Your task to perform on an android device: Open the map Image 0: 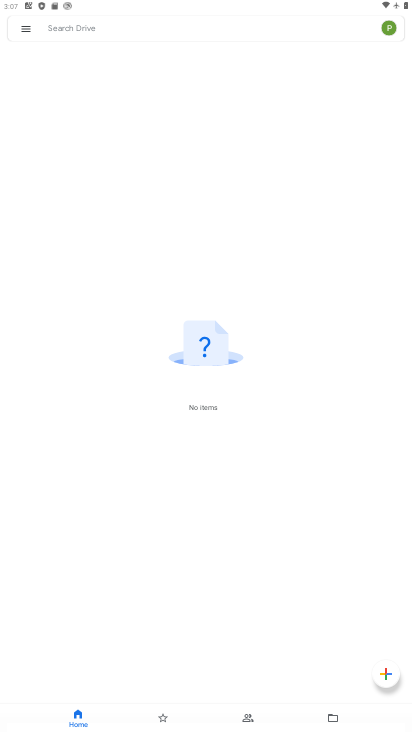
Step 0: press home button
Your task to perform on an android device: Open the map Image 1: 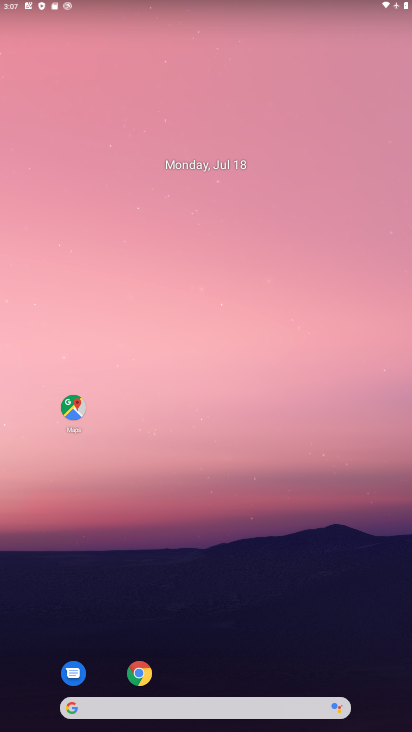
Step 1: click (70, 413)
Your task to perform on an android device: Open the map Image 2: 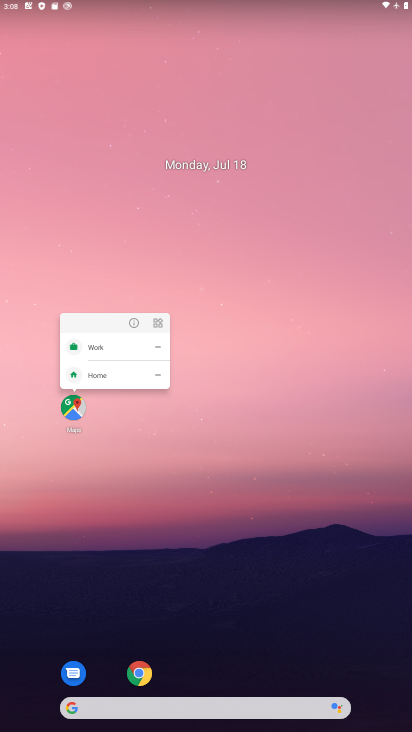
Step 2: click (76, 418)
Your task to perform on an android device: Open the map Image 3: 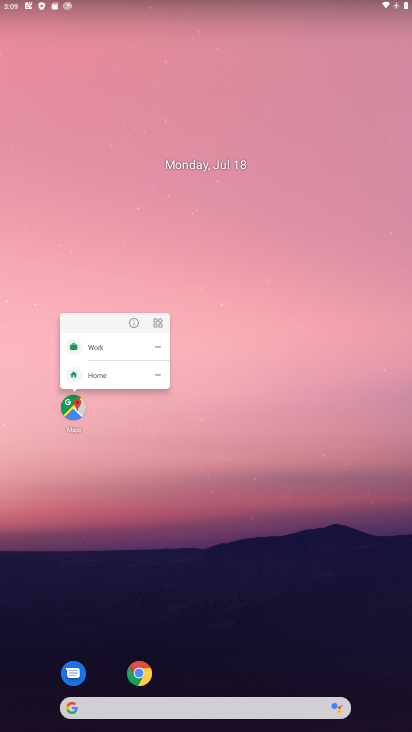
Step 3: click (82, 411)
Your task to perform on an android device: Open the map Image 4: 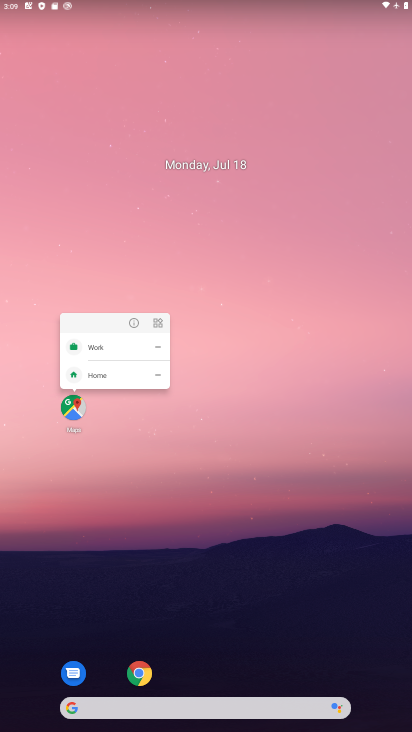
Step 4: click (72, 391)
Your task to perform on an android device: Open the map Image 5: 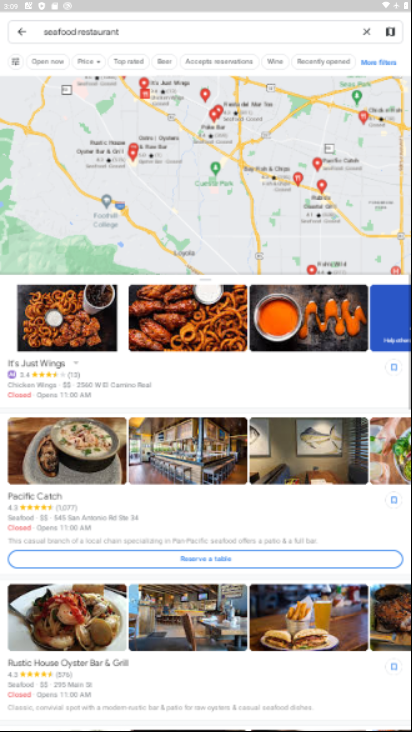
Step 5: task complete